Your task to perform on an android device: delete browsing data in the chrome app Image 0: 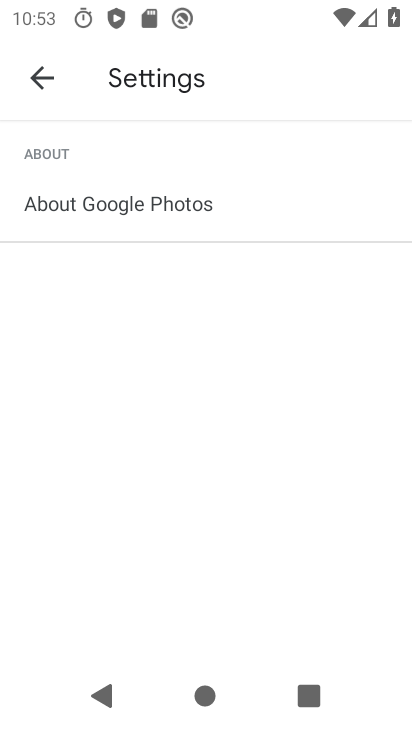
Step 0: press home button
Your task to perform on an android device: delete browsing data in the chrome app Image 1: 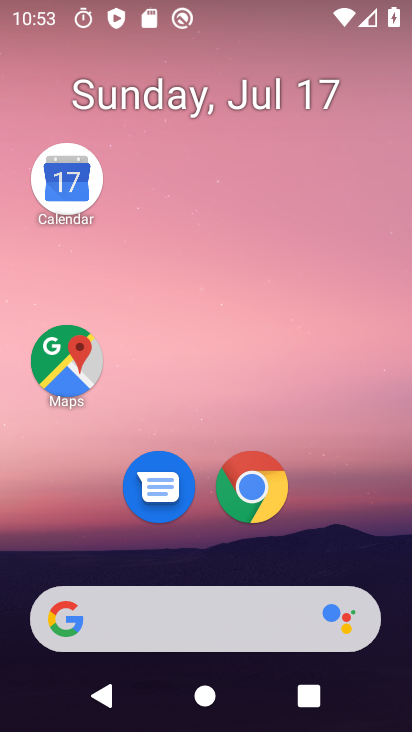
Step 1: click (242, 501)
Your task to perform on an android device: delete browsing data in the chrome app Image 2: 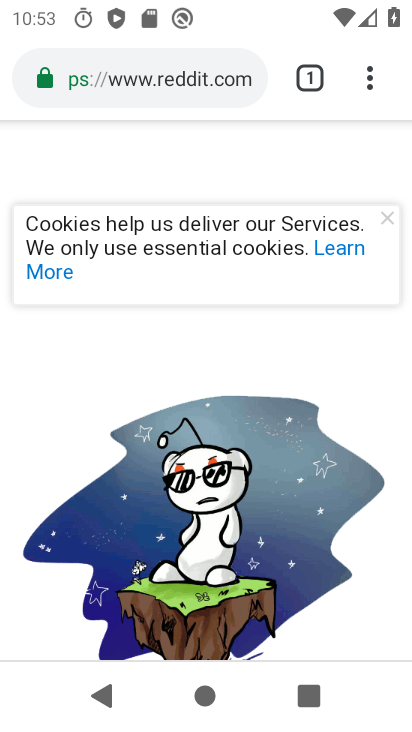
Step 2: click (376, 69)
Your task to perform on an android device: delete browsing data in the chrome app Image 3: 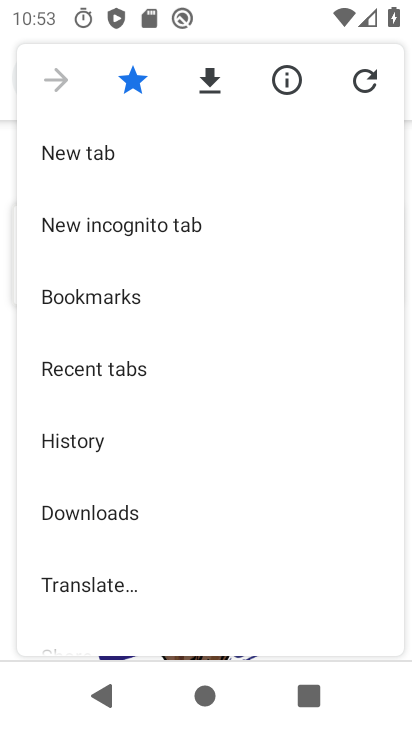
Step 3: drag from (201, 502) to (203, 144)
Your task to perform on an android device: delete browsing data in the chrome app Image 4: 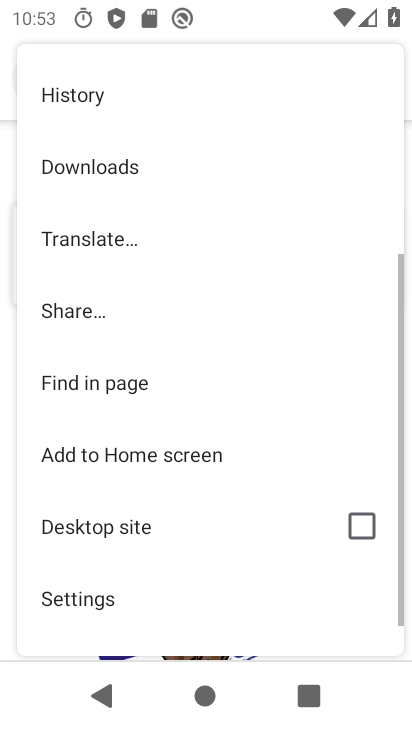
Step 4: drag from (171, 474) to (163, 147)
Your task to perform on an android device: delete browsing data in the chrome app Image 5: 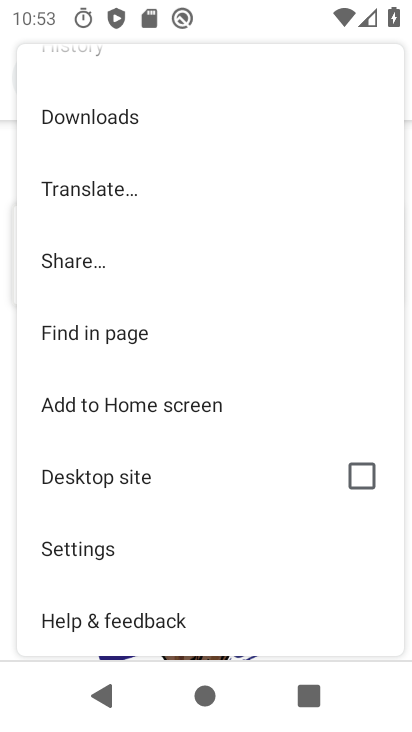
Step 5: click (87, 542)
Your task to perform on an android device: delete browsing data in the chrome app Image 6: 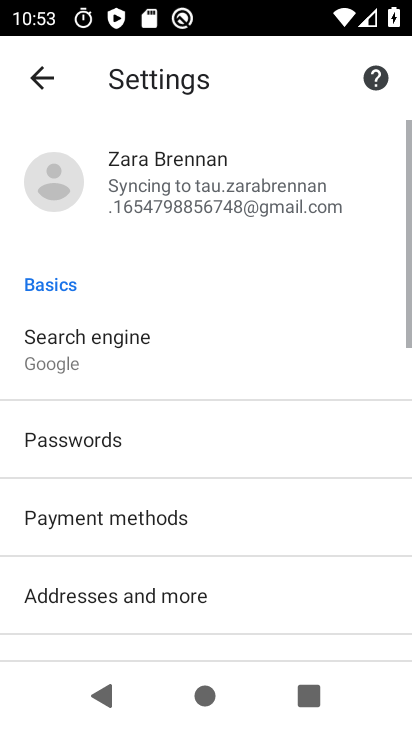
Step 6: drag from (73, 523) to (99, 216)
Your task to perform on an android device: delete browsing data in the chrome app Image 7: 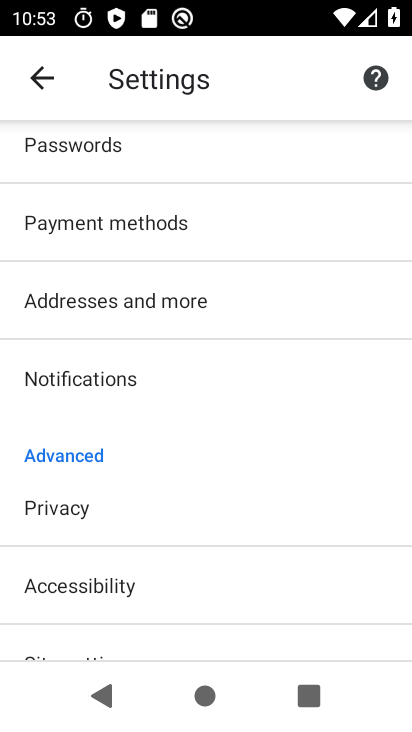
Step 7: click (90, 502)
Your task to perform on an android device: delete browsing data in the chrome app Image 8: 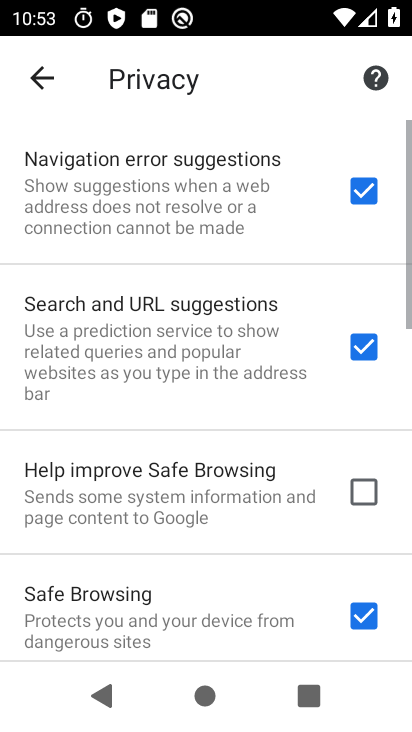
Step 8: drag from (90, 502) to (133, 160)
Your task to perform on an android device: delete browsing data in the chrome app Image 9: 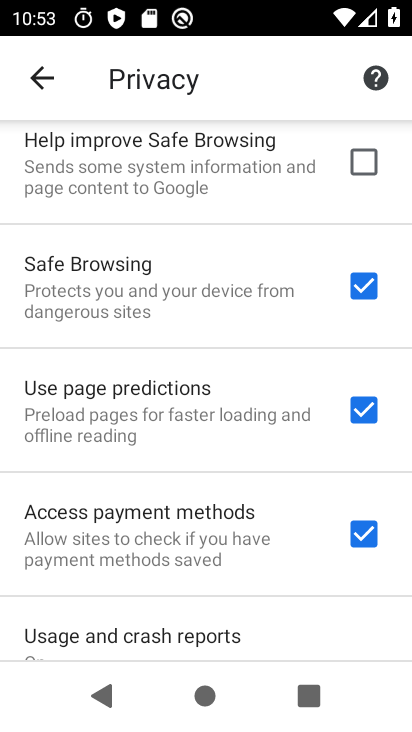
Step 9: drag from (167, 570) to (210, 227)
Your task to perform on an android device: delete browsing data in the chrome app Image 10: 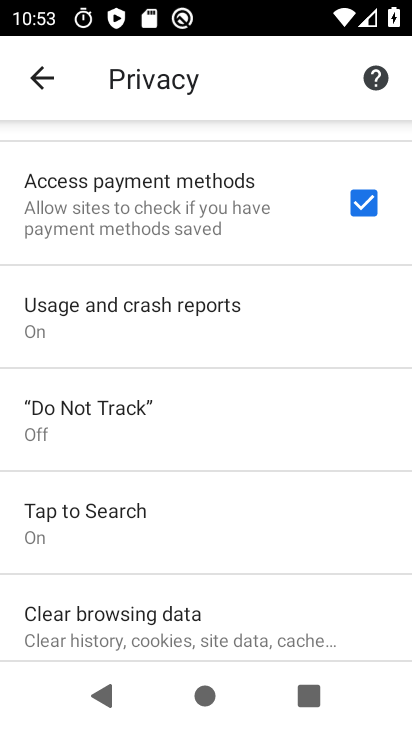
Step 10: drag from (177, 505) to (243, 241)
Your task to perform on an android device: delete browsing data in the chrome app Image 11: 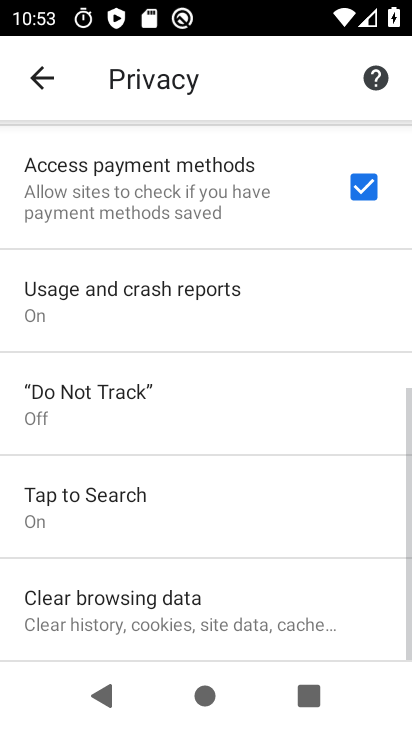
Step 11: click (149, 600)
Your task to perform on an android device: delete browsing data in the chrome app Image 12: 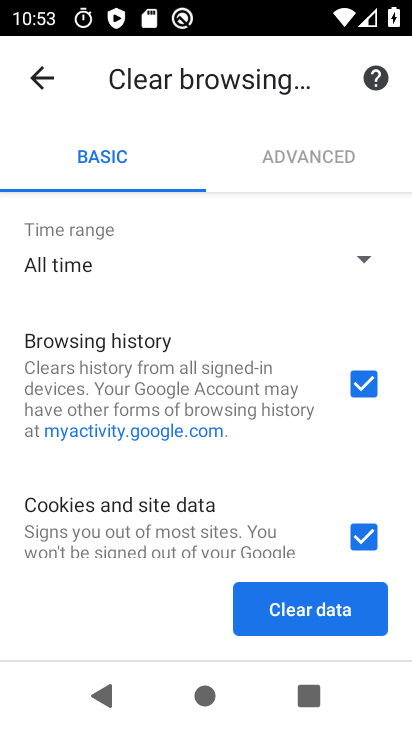
Step 12: click (301, 601)
Your task to perform on an android device: delete browsing data in the chrome app Image 13: 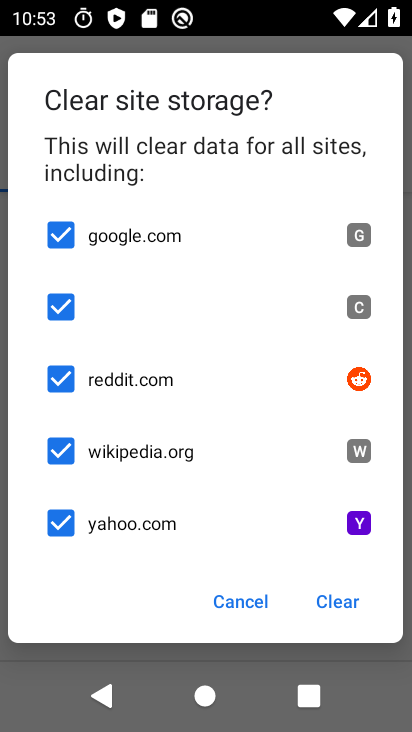
Step 13: click (341, 586)
Your task to perform on an android device: delete browsing data in the chrome app Image 14: 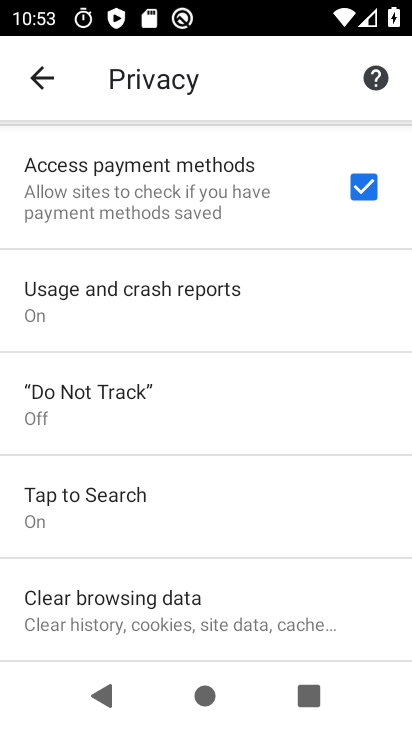
Step 14: task complete